Your task to perform on an android device: Set the phone to "Do not disturb". Image 0: 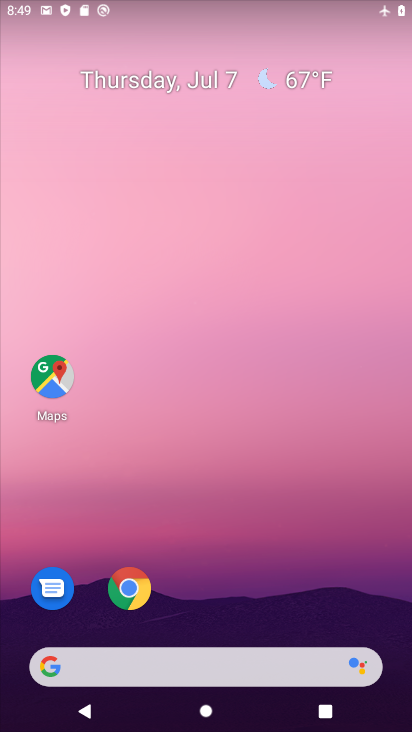
Step 0: drag from (210, 591) to (162, 88)
Your task to perform on an android device: Set the phone to "Do not disturb". Image 1: 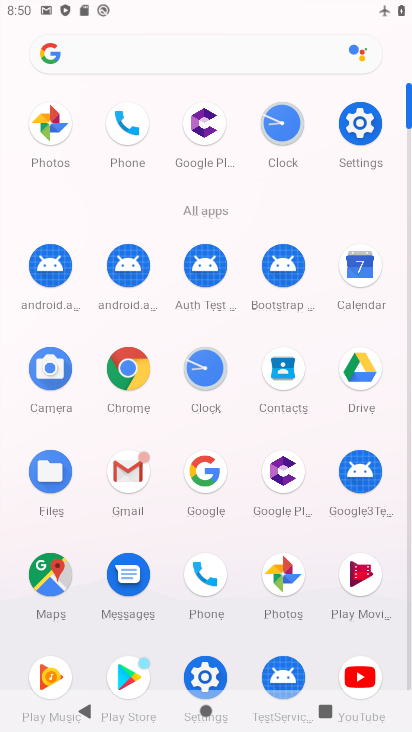
Step 1: click (361, 120)
Your task to perform on an android device: Set the phone to "Do not disturb". Image 2: 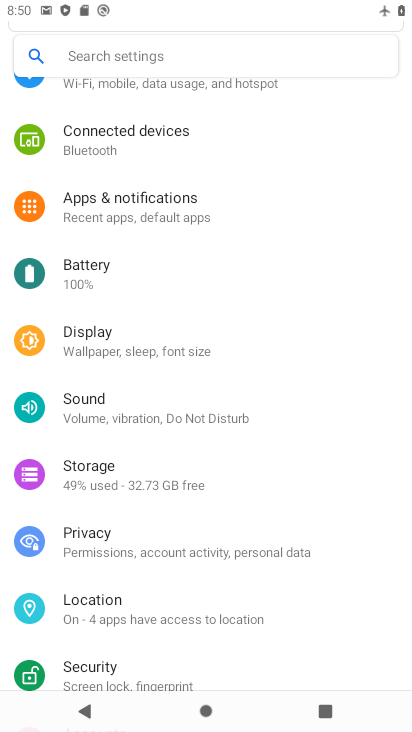
Step 2: click (151, 417)
Your task to perform on an android device: Set the phone to "Do not disturb". Image 3: 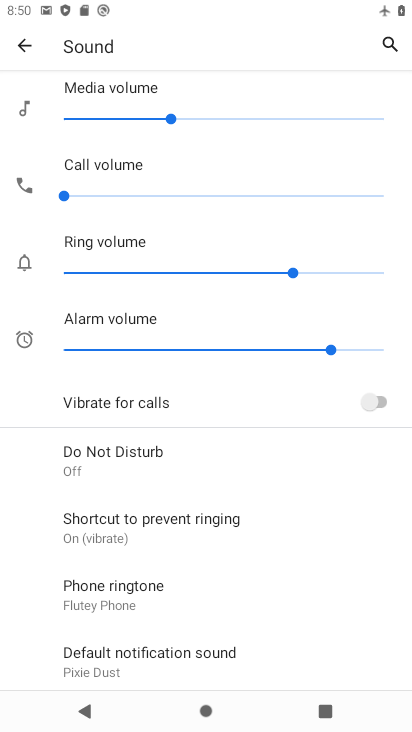
Step 3: click (156, 447)
Your task to perform on an android device: Set the phone to "Do not disturb". Image 4: 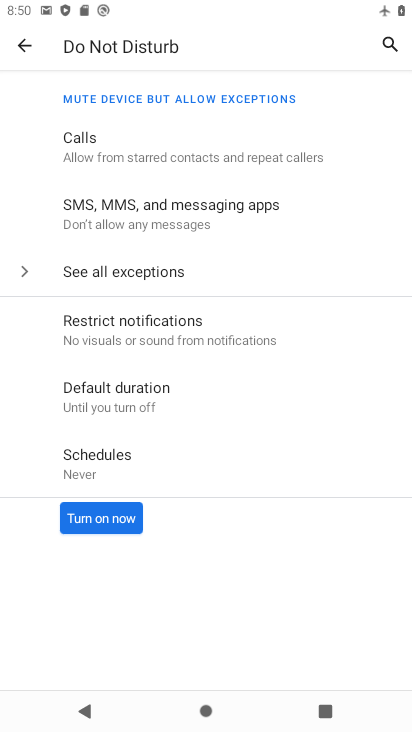
Step 4: click (93, 521)
Your task to perform on an android device: Set the phone to "Do not disturb". Image 5: 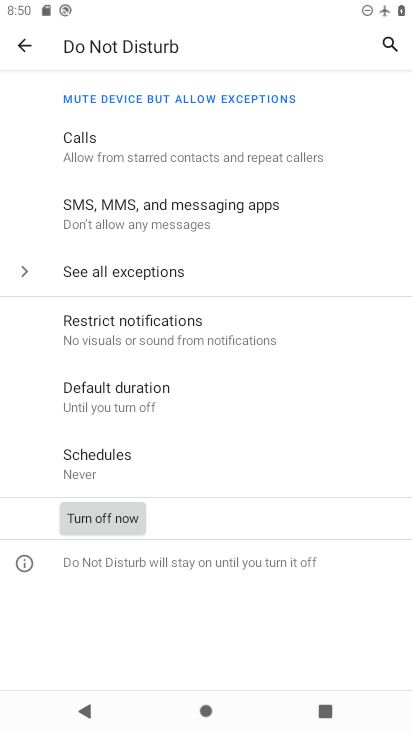
Step 5: task complete